Your task to perform on an android device: What's the latest video from GameSpot Reviews? Image 0: 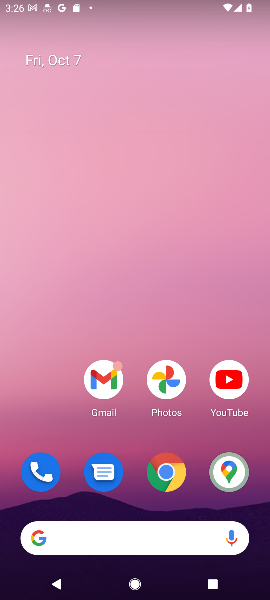
Step 0: click (229, 376)
Your task to perform on an android device: What's the latest video from GameSpot Reviews? Image 1: 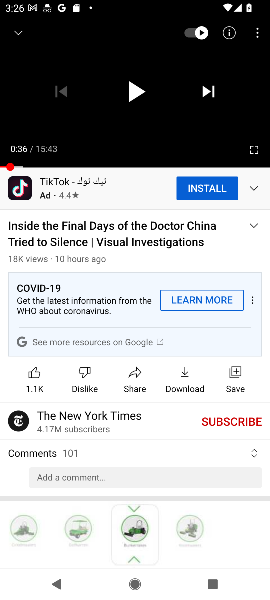
Step 1: press back button
Your task to perform on an android device: What's the latest video from GameSpot Reviews? Image 2: 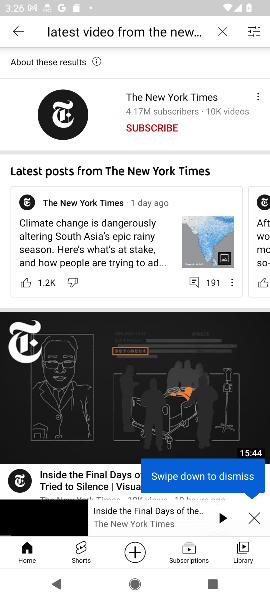
Step 2: click (216, 33)
Your task to perform on an android device: What's the latest video from GameSpot Reviews? Image 3: 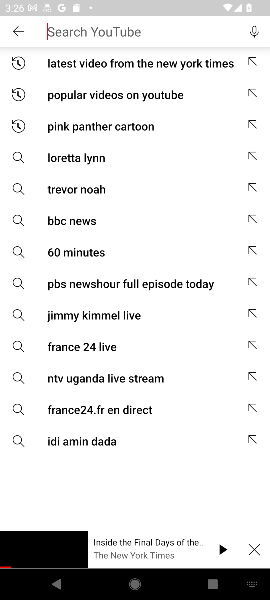
Step 3: click (251, 553)
Your task to perform on an android device: What's the latest video from GameSpot Reviews? Image 4: 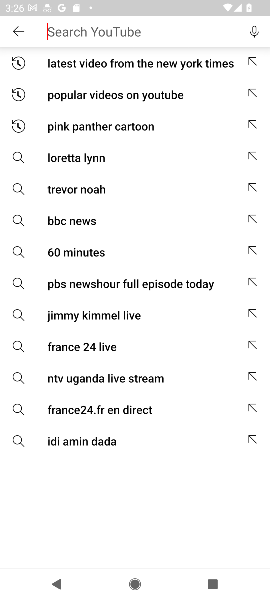
Step 4: click (150, 36)
Your task to perform on an android device: What's the latest video from GameSpot Reviews? Image 5: 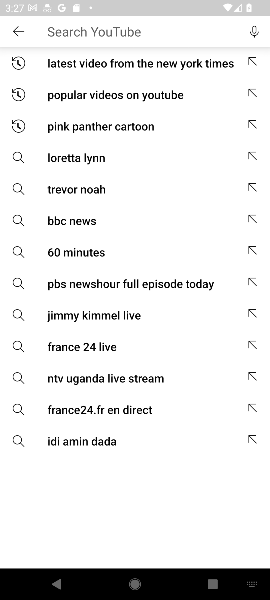
Step 5: type "latest video from GameSpot Reviews?"
Your task to perform on an android device: What's the latest video from GameSpot Reviews? Image 6: 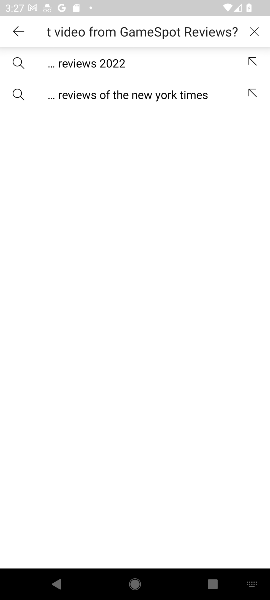
Step 6: click (120, 62)
Your task to perform on an android device: What's the latest video from GameSpot Reviews? Image 7: 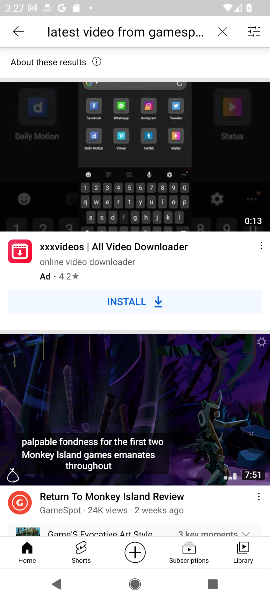
Step 7: task complete